Your task to perform on an android device: add a label to a message in the gmail app Image 0: 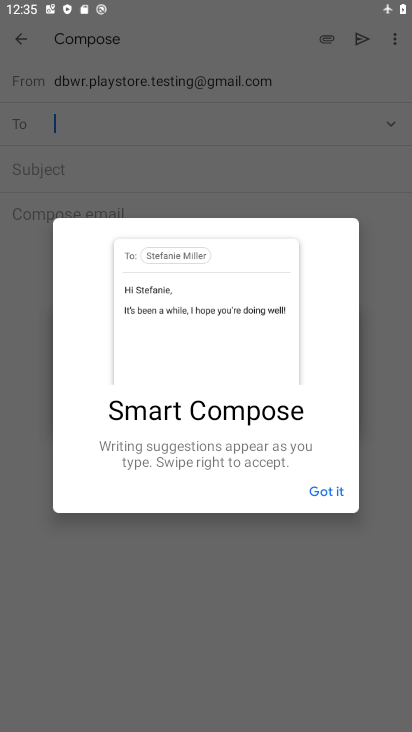
Step 0: press home button
Your task to perform on an android device: add a label to a message in the gmail app Image 1: 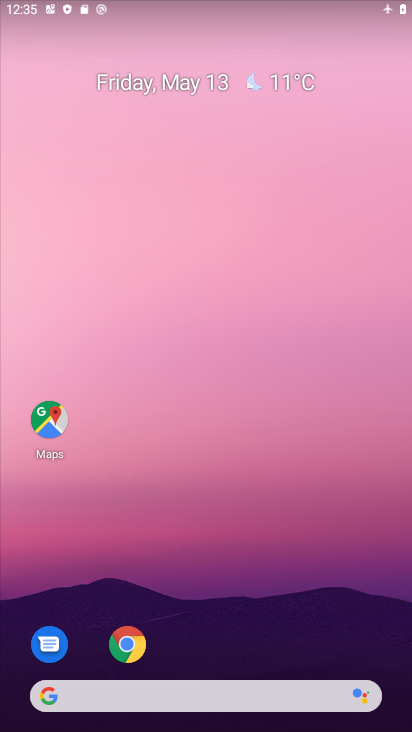
Step 1: drag from (229, 718) to (228, 104)
Your task to perform on an android device: add a label to a message in the gmail app Image 2: 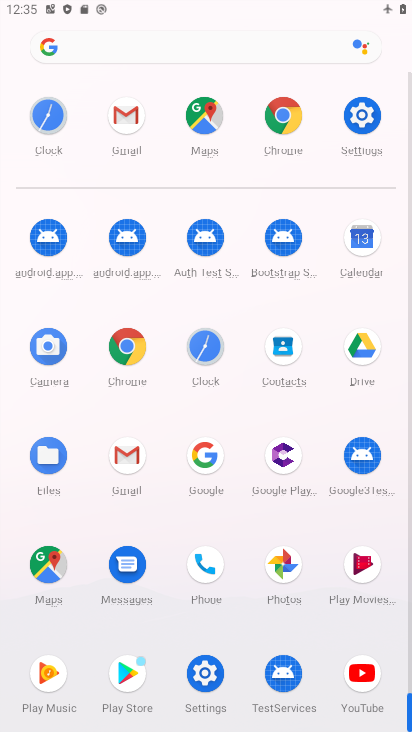
Step 2: click (128, 459)
Your task to perform on an android device: add a label to a message in the gmail app Image 3: 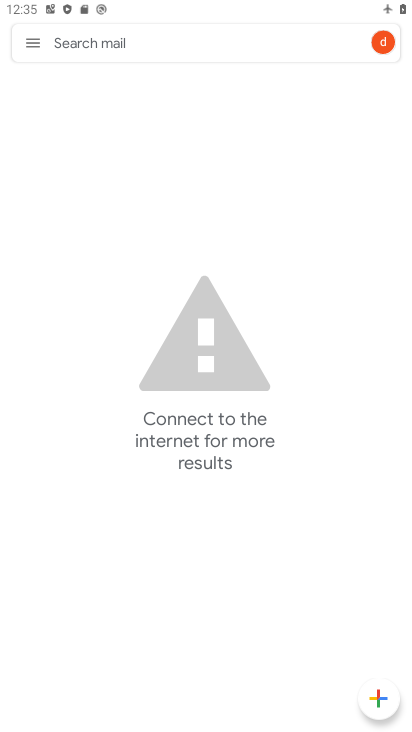
Step 3: click (35, 40)
Your task to perform on an android device: add a label to a message in the gmail app Image 4: 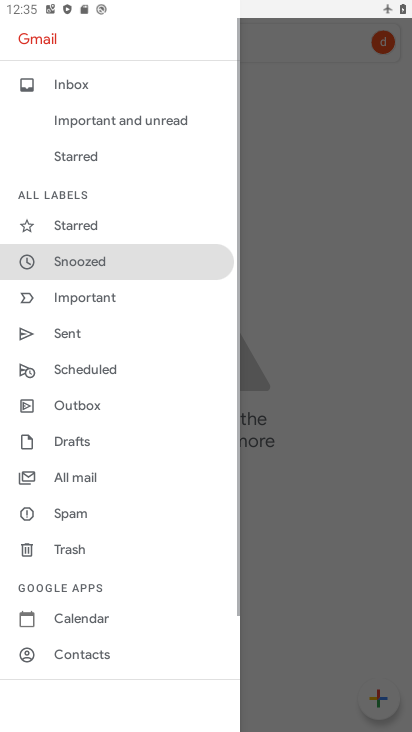
Step 4: click (77, 82)
Your task to perform on an android device: add a label to a message in the gmail app Image 5: 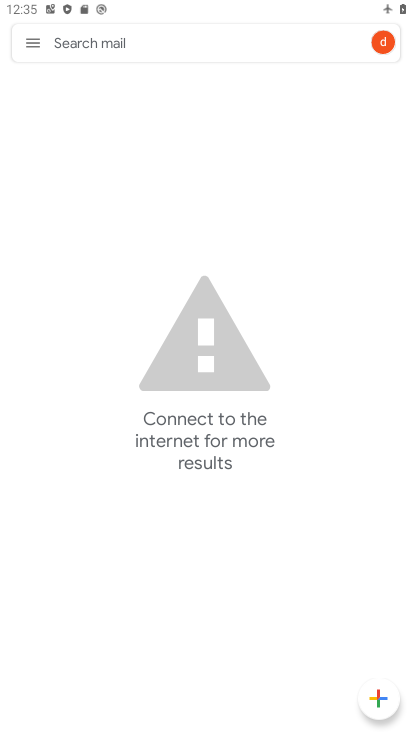
Step 5: task complete